Your task to perform on an android device: Toggle the flashlight Image 0: 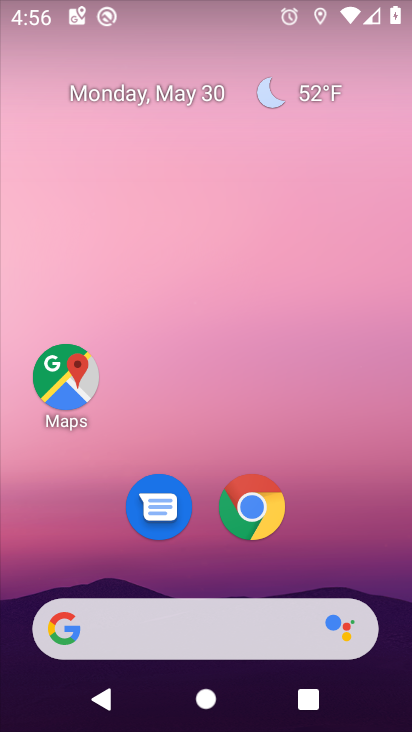
Step 0: drag from (324, 11) to (272, 425)
Your task to perform on an android device: Toggle the flashlight Image 1: 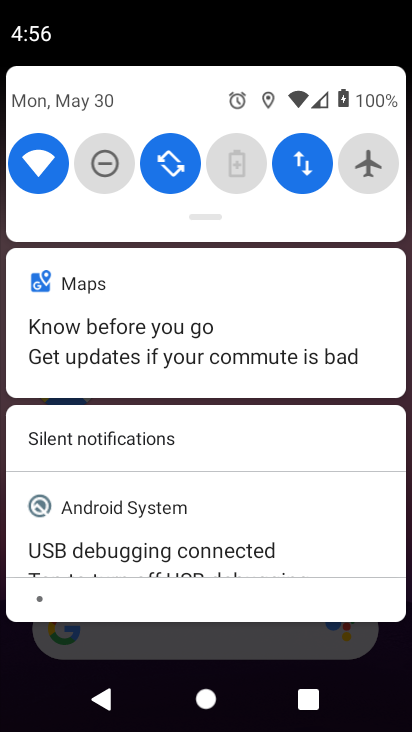
Step 1: task complete